Your task to perform on an android device: Check the settings for the Google Photos app Image 0: 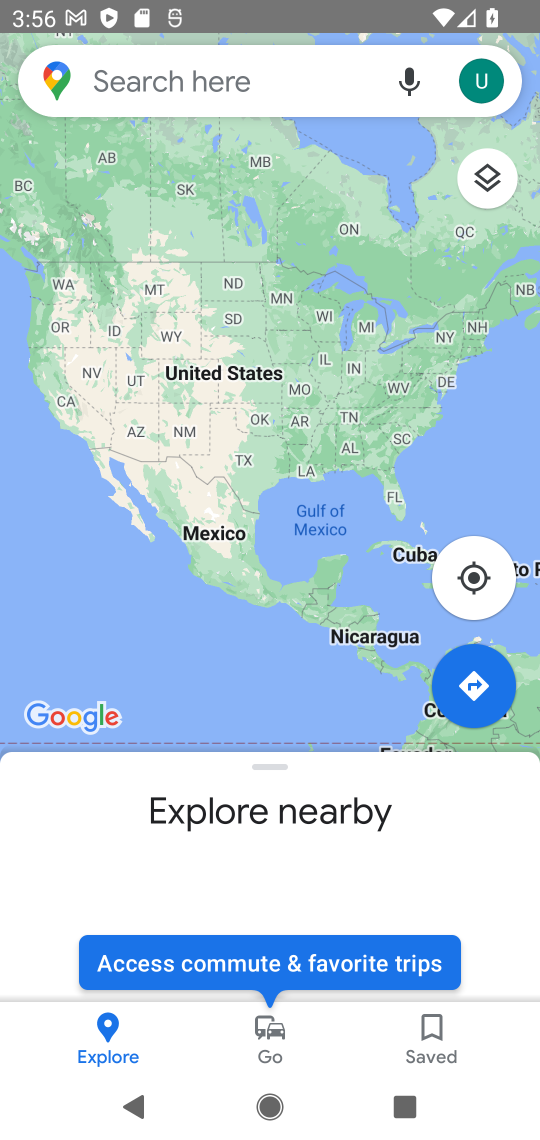
Step 0: press home button
Your task to perform on an android device: Check the settings for the Google Photos app Image 1: 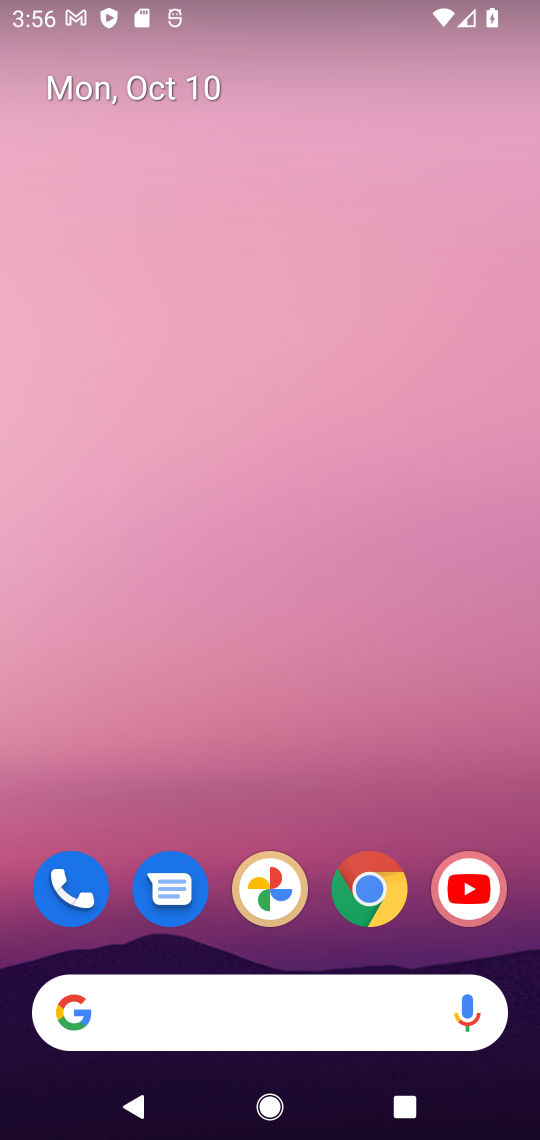
Step 1: click (269, 885)
Your task to perform on an android device: Check the settings for the Google Photos app Image 2: 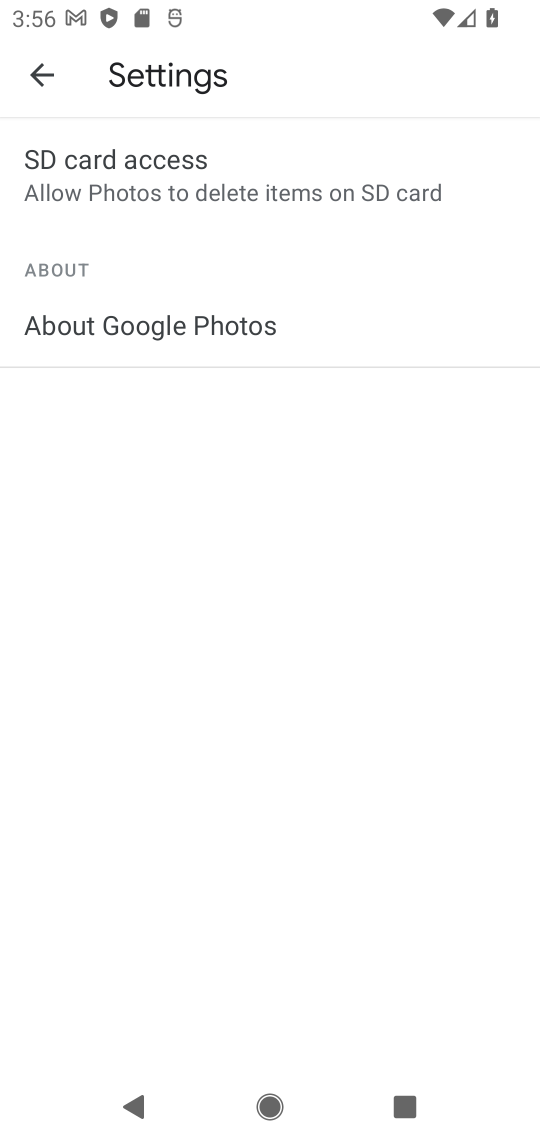
Step 2: press back button
Your task to perform on an android device: Check the settings for the Google Photos app Image 3: 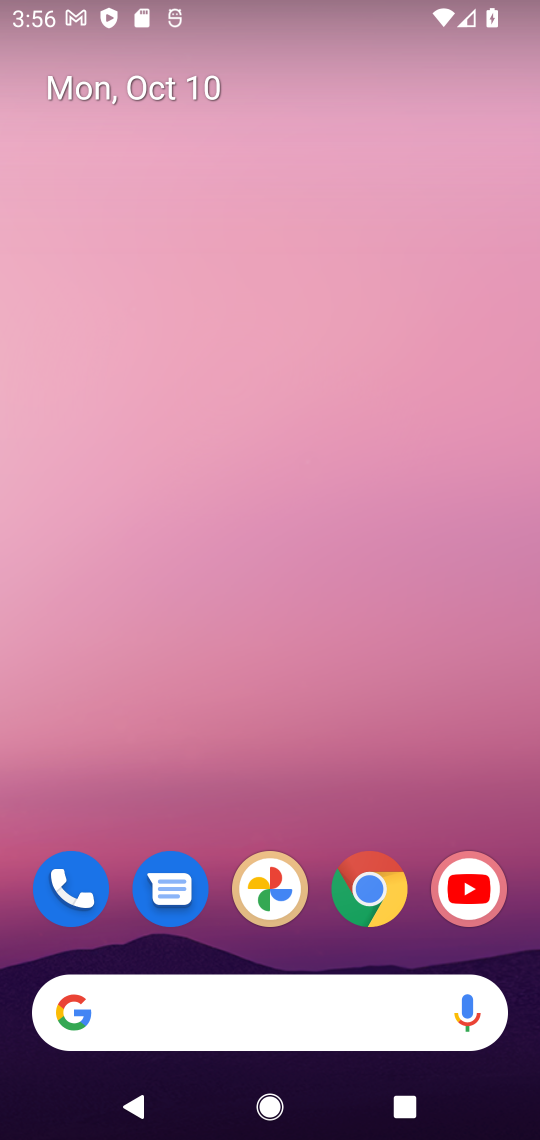
Step 3: click (265, 894)
Your task to perform on an android device: Check the settings for the Google Photos app Image 4: 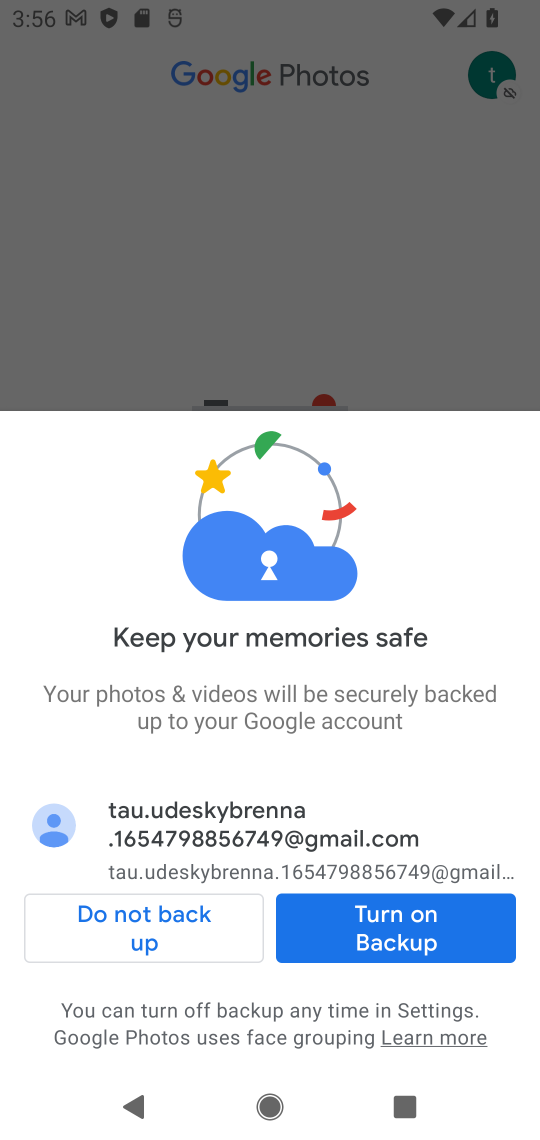
Step 4: click (400, 921)
Your task to perform on an android device: Check the settings for the Google Photos app Image 5: 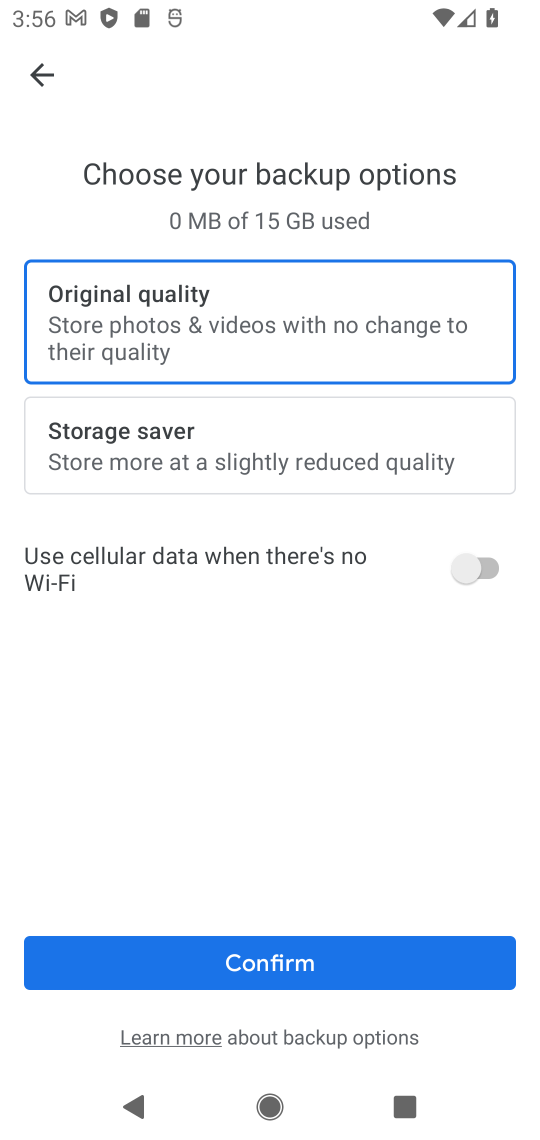
Step 5: click (269, 955)
Your task to perform on an android device: Check the settings for the Google Photos app Image 6: 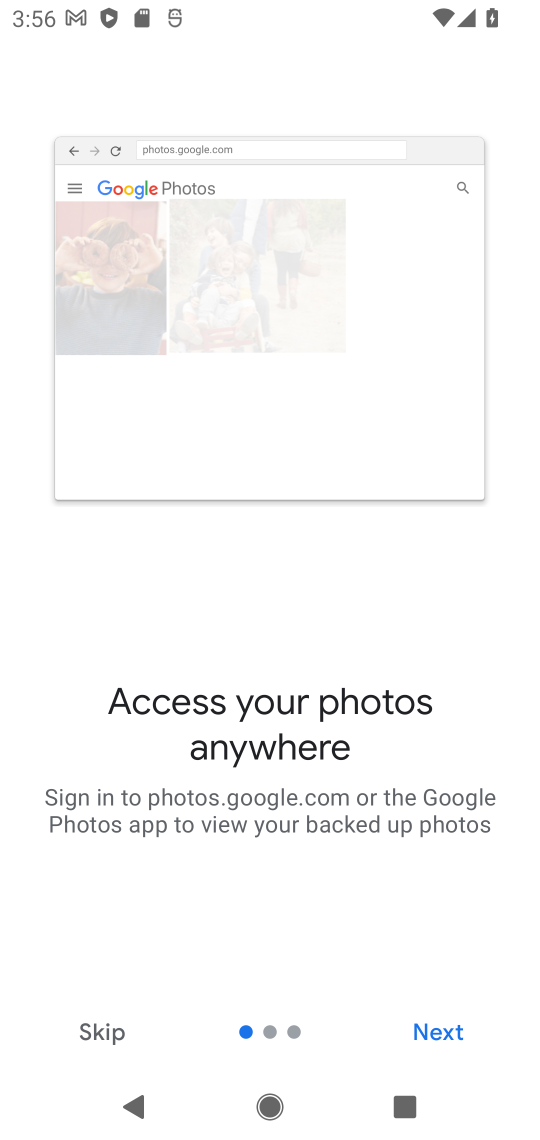
Step 6: click (106, 1039)
Your task to perform on an android device: Check the settings for the Google Photos app Image 7: 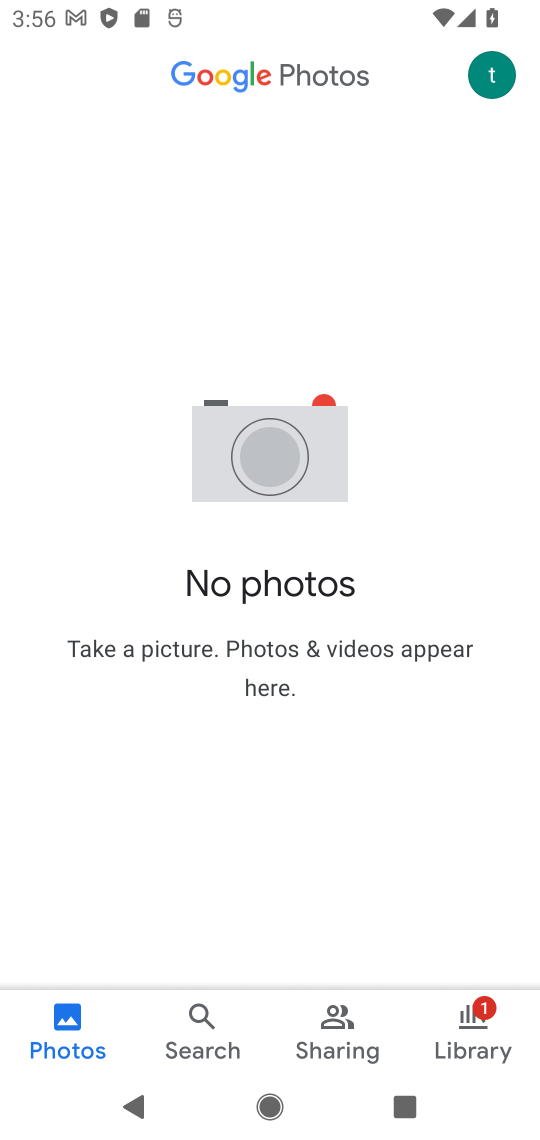
Step 7: click (494, 78)
Your task to perform on an android device: Check the settings for the Google Photos app Image 8: 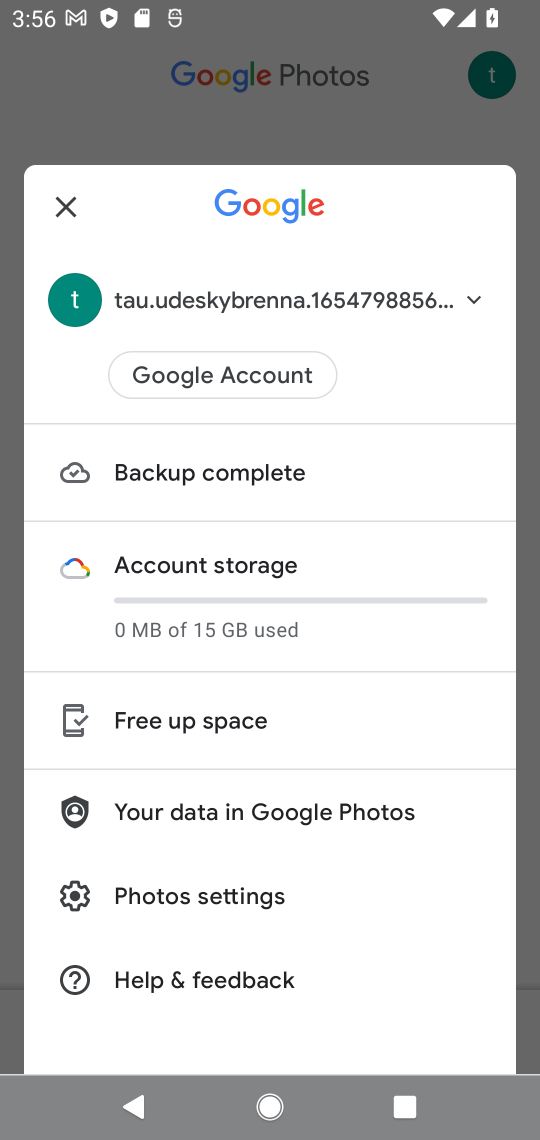
Step 8: click (156, 892)
Your task to perform on an android device: Check the settings for the Google Photos app Image 9: 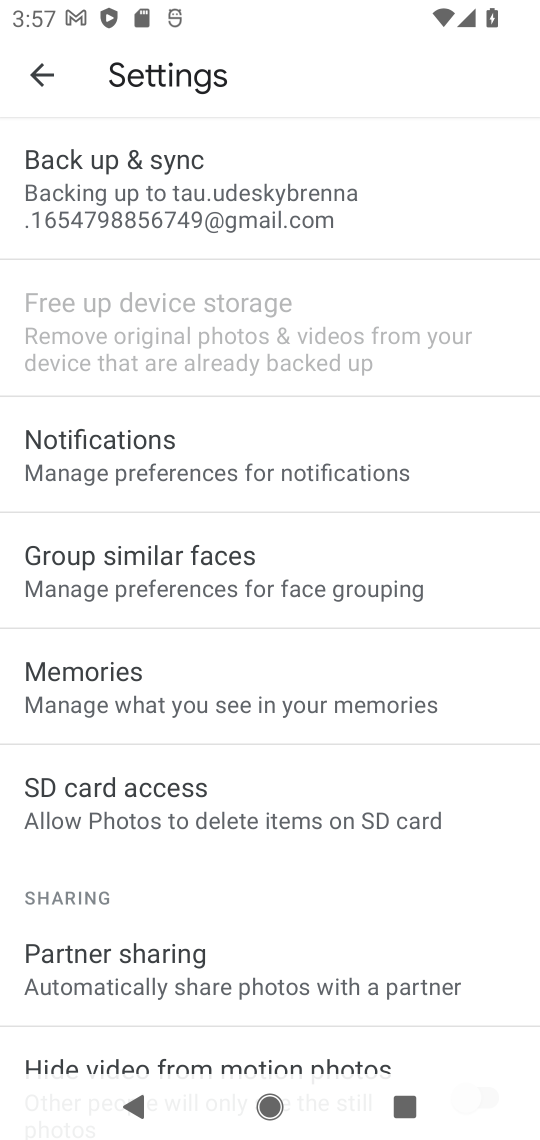
Step 9: task complete